Your task to perform on an android device: What's a goodrestaurant in Austin? Image 0: 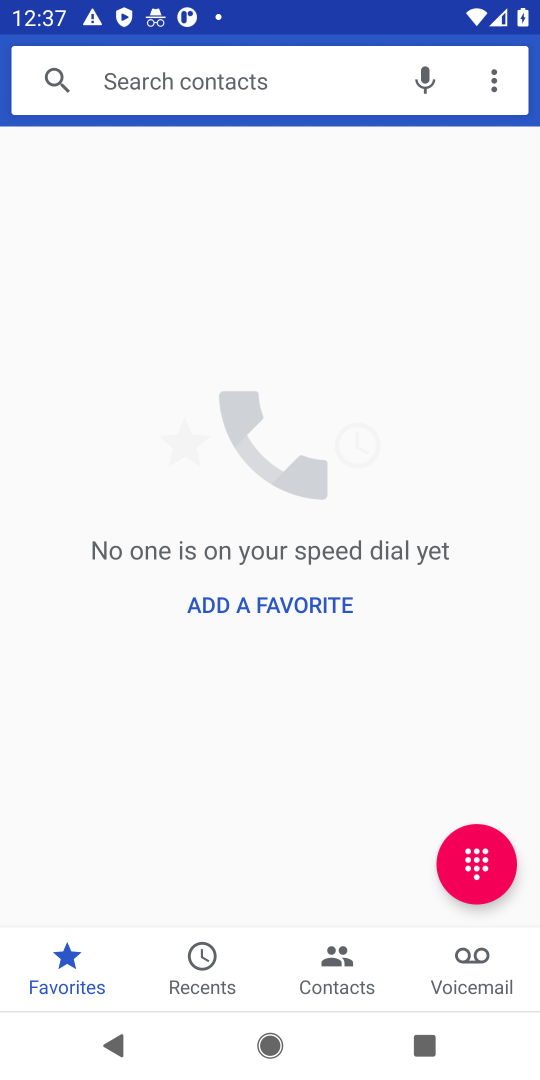
Step 0: press home button
Your task to perform on an android device: What's a goodrestaurant in Austin? Image 1: 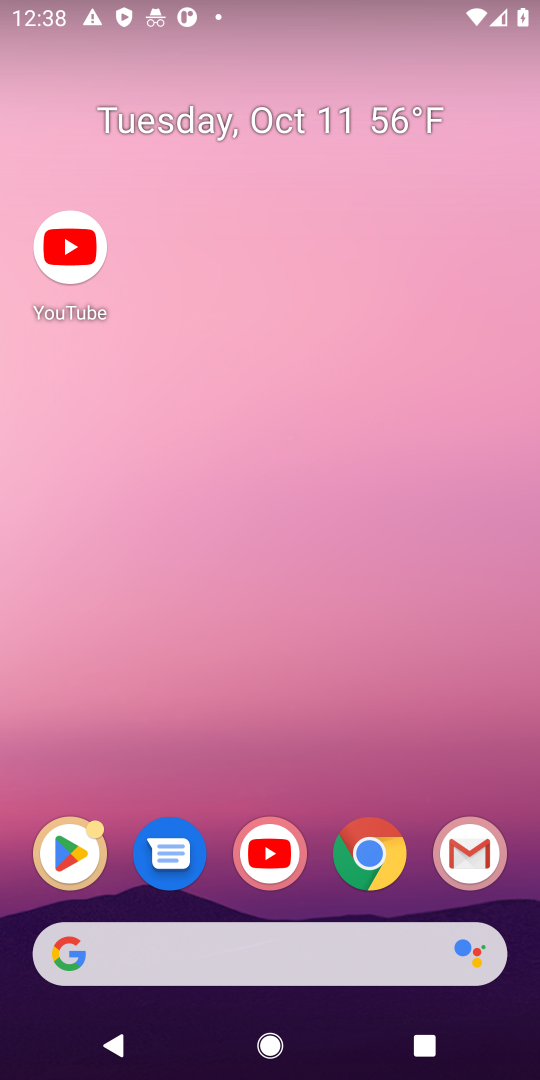
Step 1: drag from (309, 764) to (361, 12)
Your task to perform on an android device: What's a goodrestaurant in Austin? Image 2: 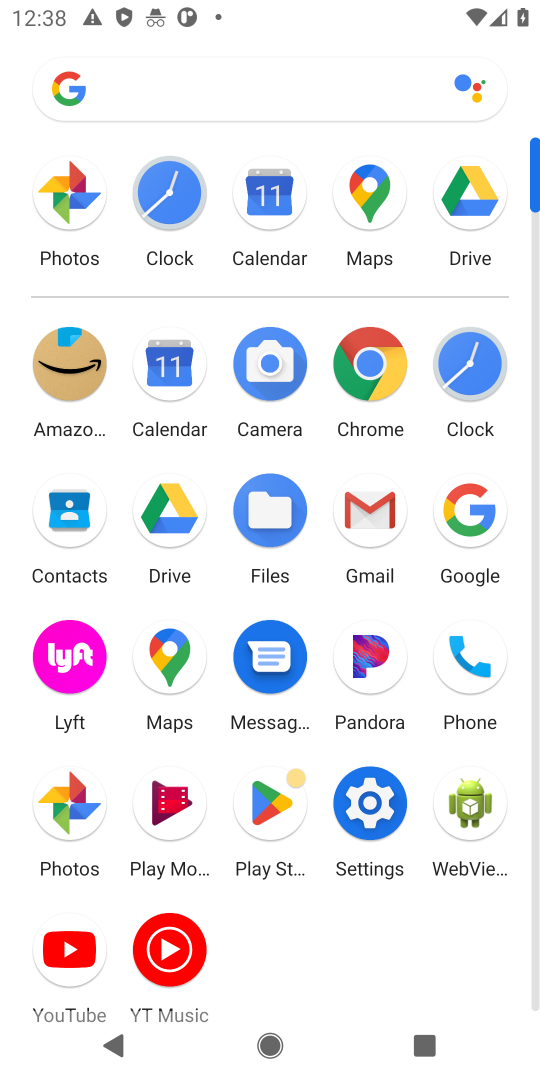
Step 2: click (373, 356)
Your task to perform on an android device: What's a goodrestaurant in Austin? Image 3: 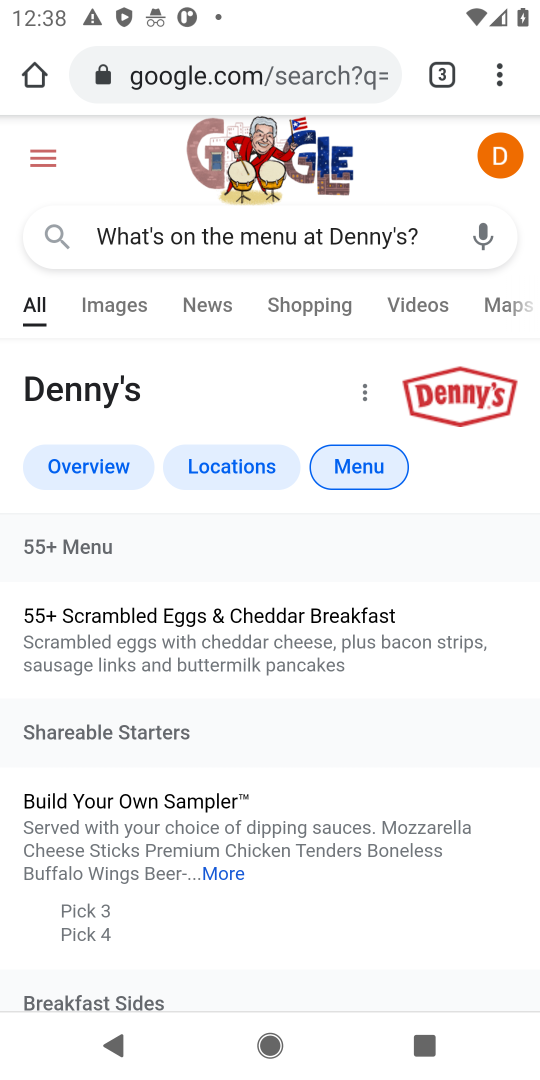
Step 3: click (321, 82)
Your task to perform on an android device: What's a goodrestaurant in Austin? Image 4: 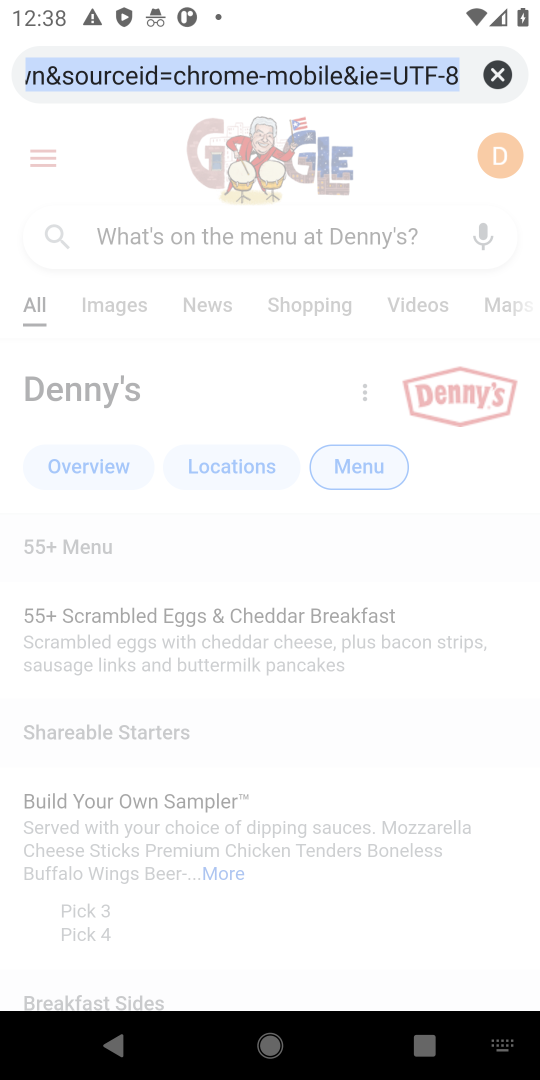
Step 4: click (491, 73)
Your task to perform on an android device: What's a goodrestaurant in Austin? Image 5: 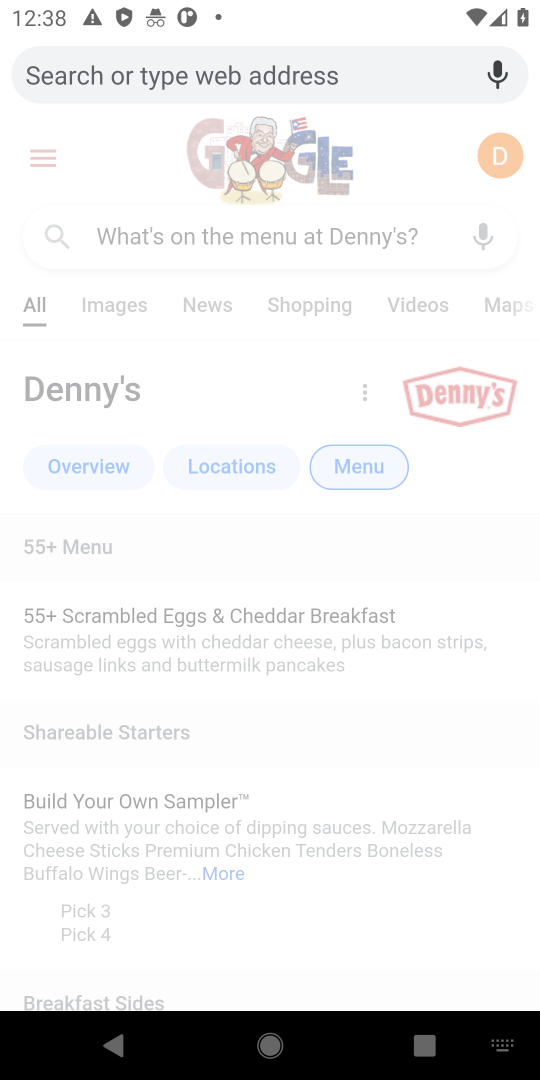
Step 5: type "What's a goodrestaurant in Austin?"
Your task to perform on an android device: What's a goodrestaurant in Austin? Image 6: 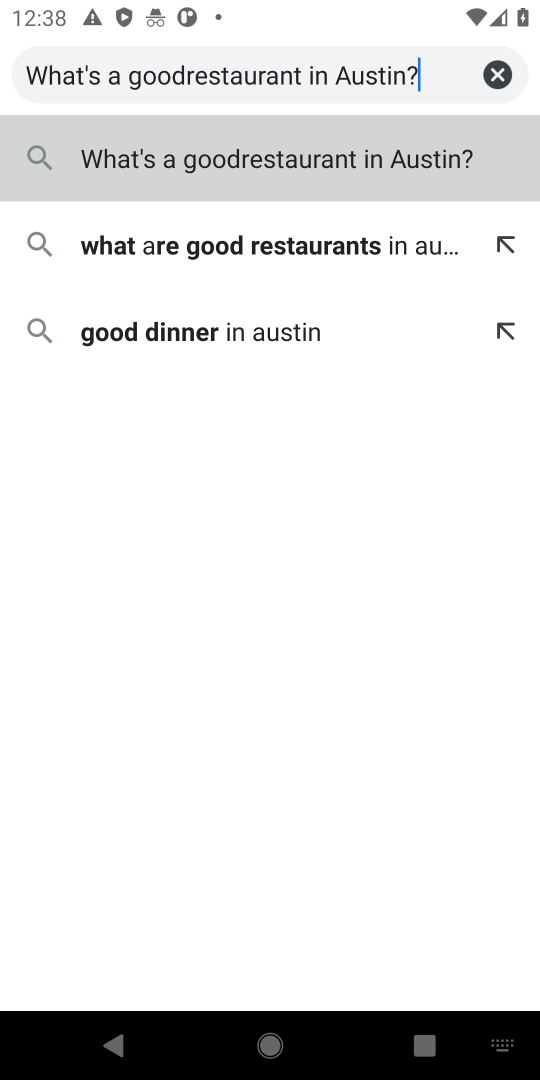
Step 6: click (288, 152)
Your task to perform on an android device: What's a goodrestaurant in Austin? Image 7: 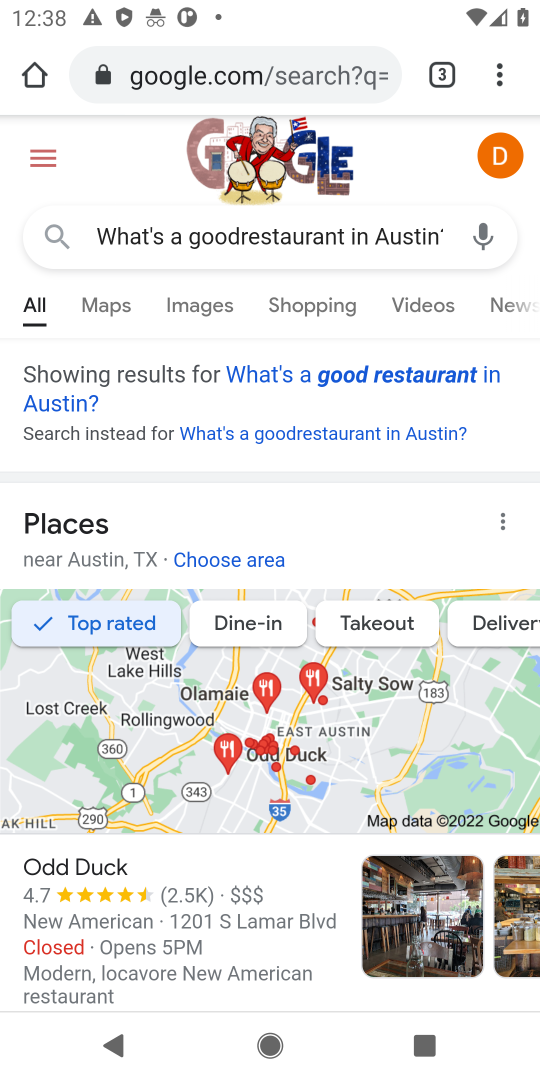
Step 7: task complete